Your task to perform on an android device: Toggle the flashlight Image 0: 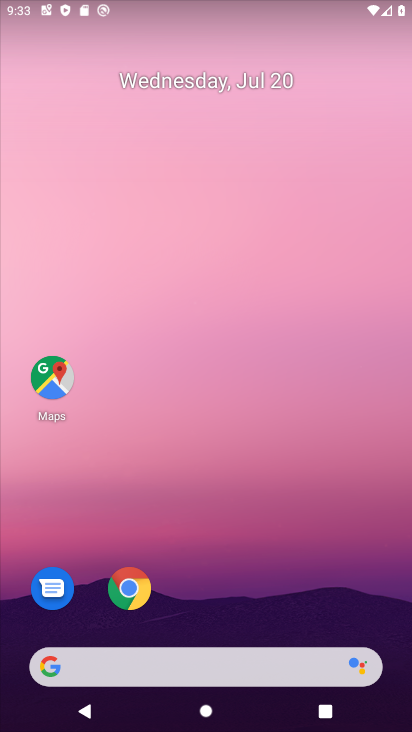
Step 0: press home button
Your task to perform on an android device: Toggle the flashlight Image 1: 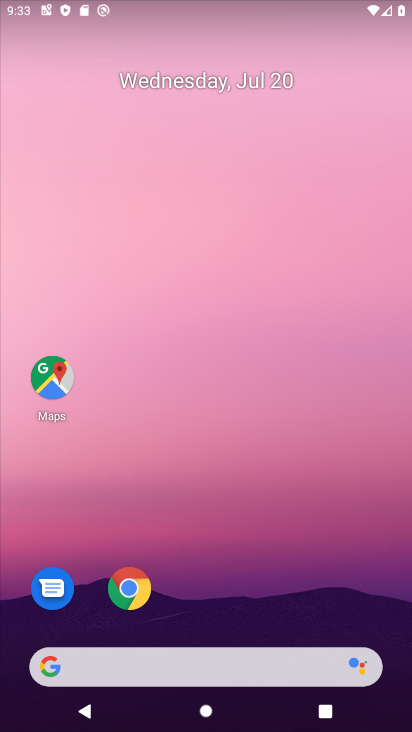
Step 1: task complete